Your task to perform on an android device: Search for "amazon basics triple a" on newegg, select the first entry, and add it to the cart. Image 0: 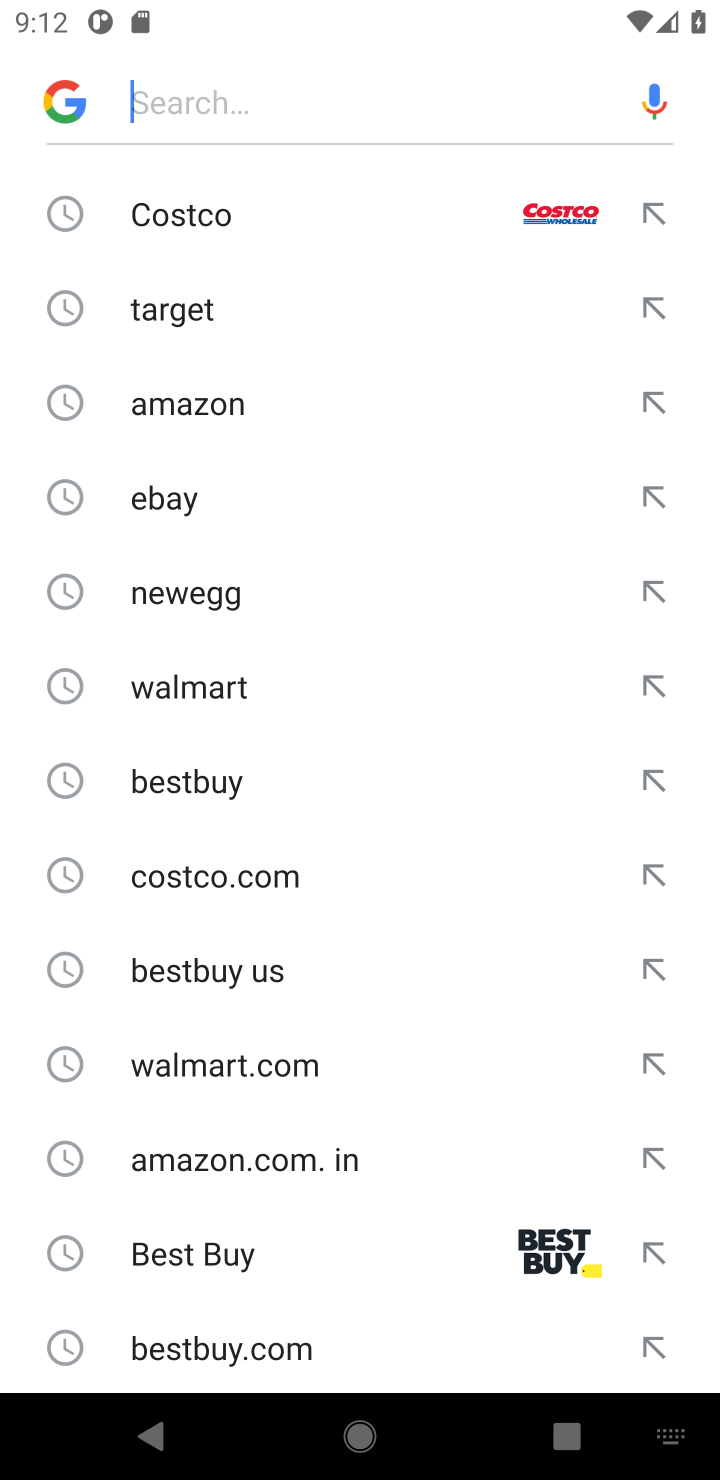
Step 0: click (235, 123)
Your task to perform on an android device: Search for "amazon basics triple a" on newegg, select the first entry, and add it to the cart. Image 1: 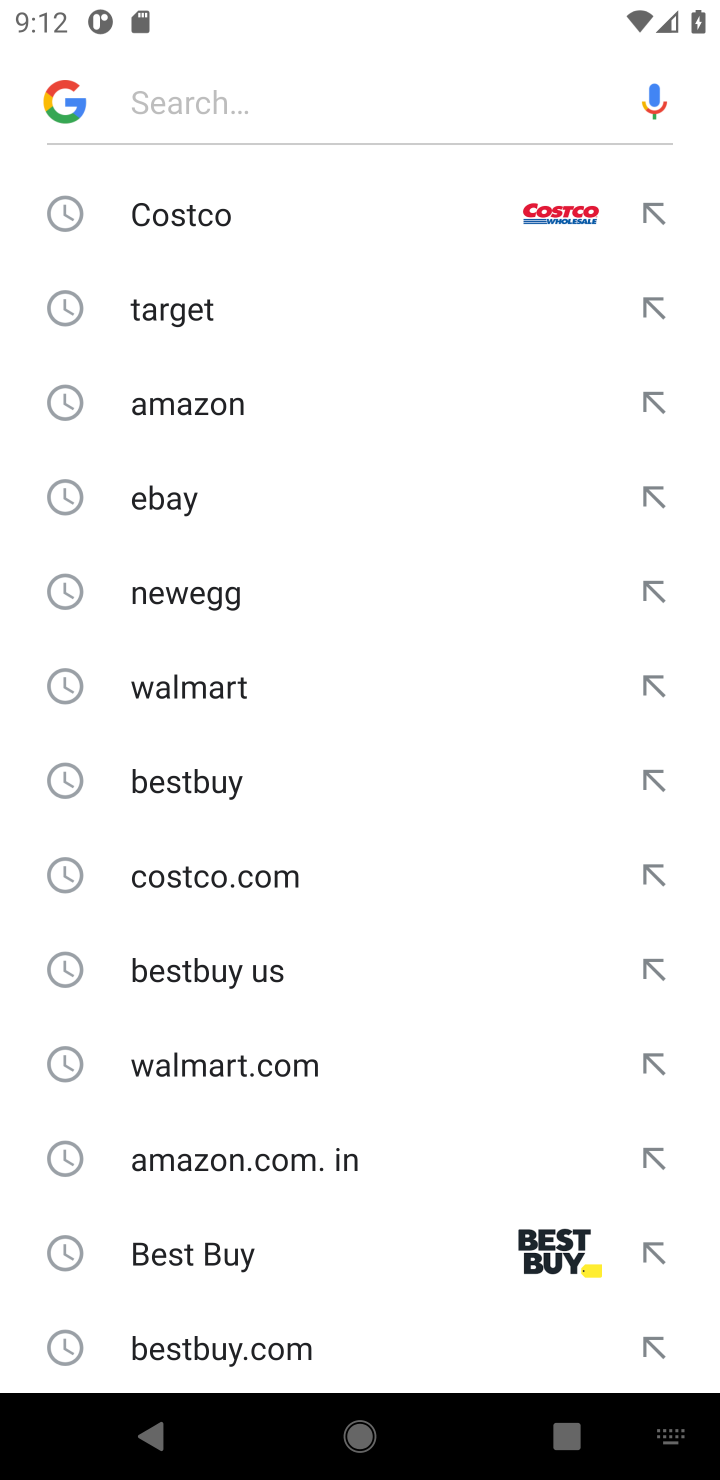
Step 1: type "newegg.com"
Your task to perform on an android device: Search for "amazon basics triple a" on newegg, select the first entry, and add it to the cart. Image 2: 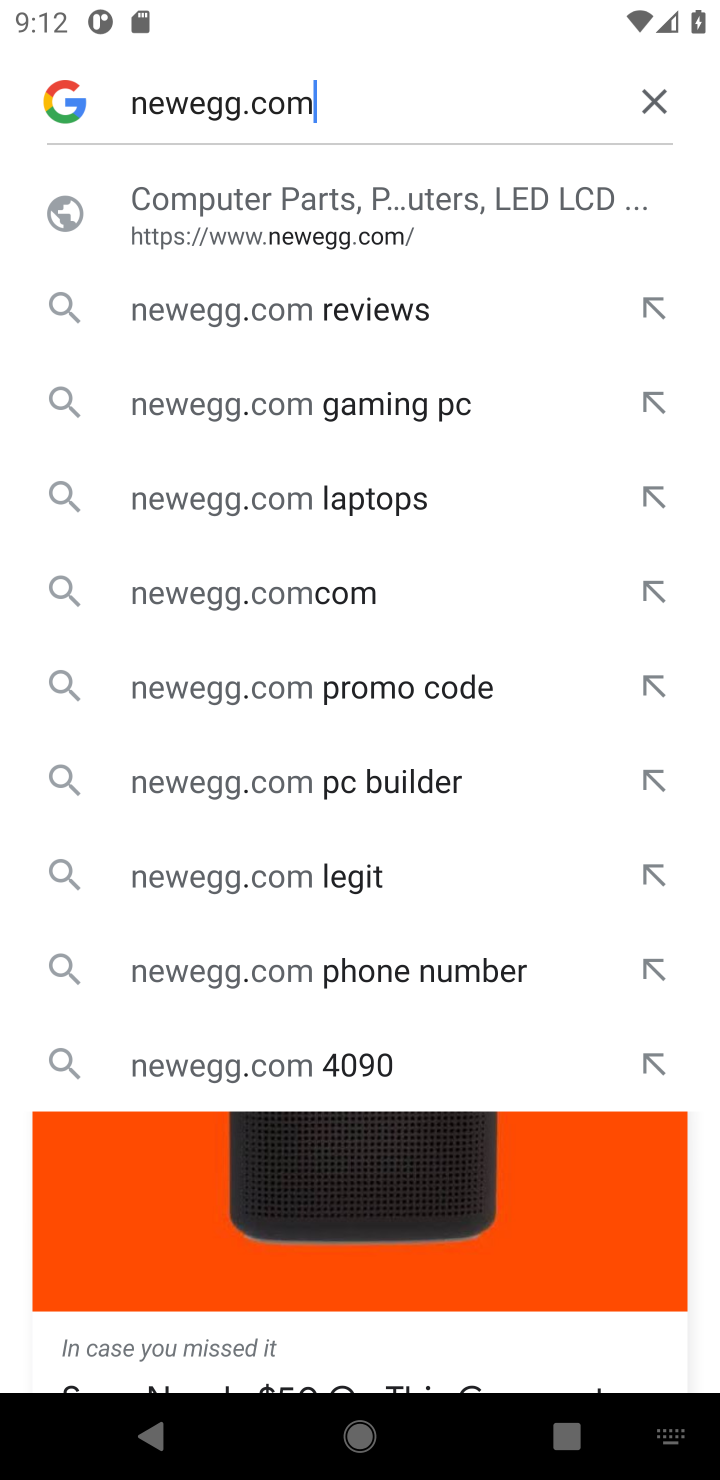
Step 2: click (205, 223)
Your task to perform on an android device: Search for "amazon basics triple a" on newegg, select the first entry, and add it to the cart. Image 3: 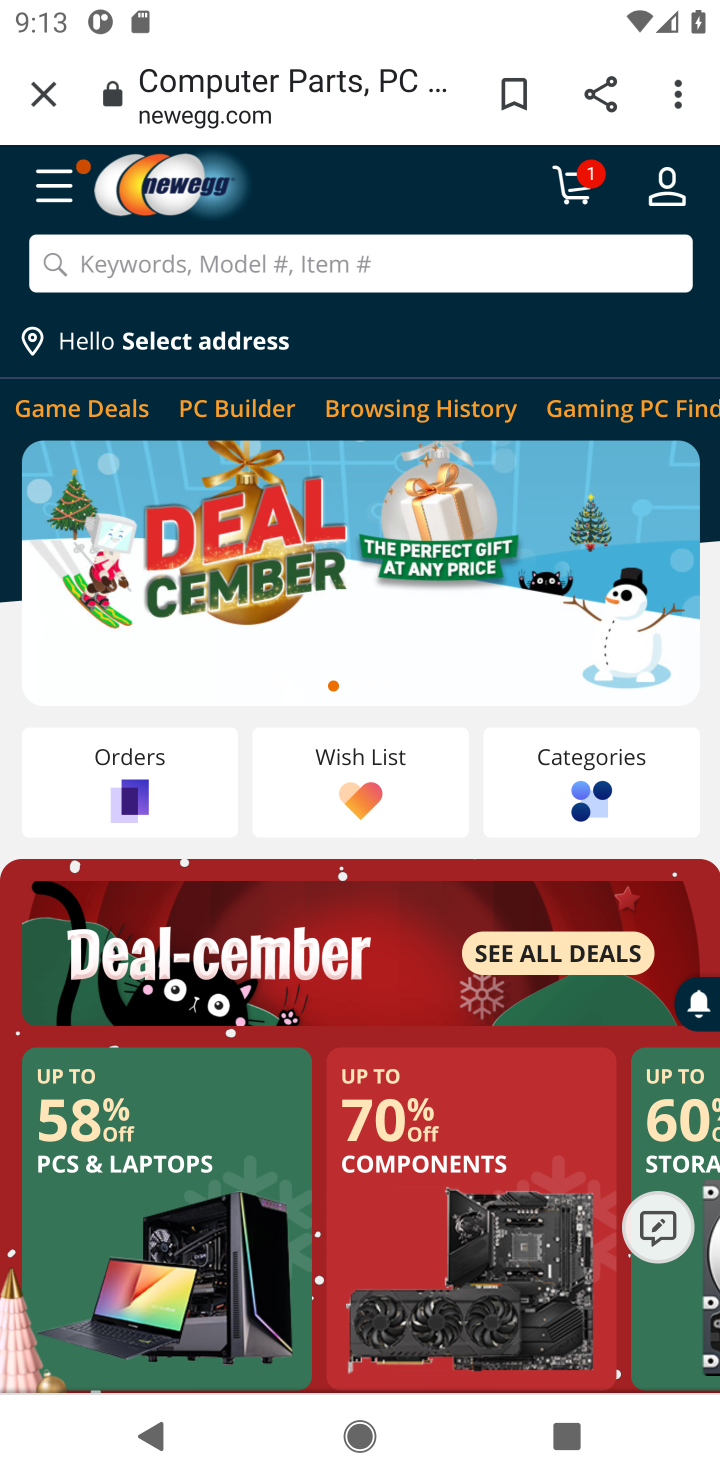
Step 3: click (112, 266)
Your task to perform on an android device: Search for "amazon basics triple a" on newegg, select the first entry, and add it to the cart. Image 4: 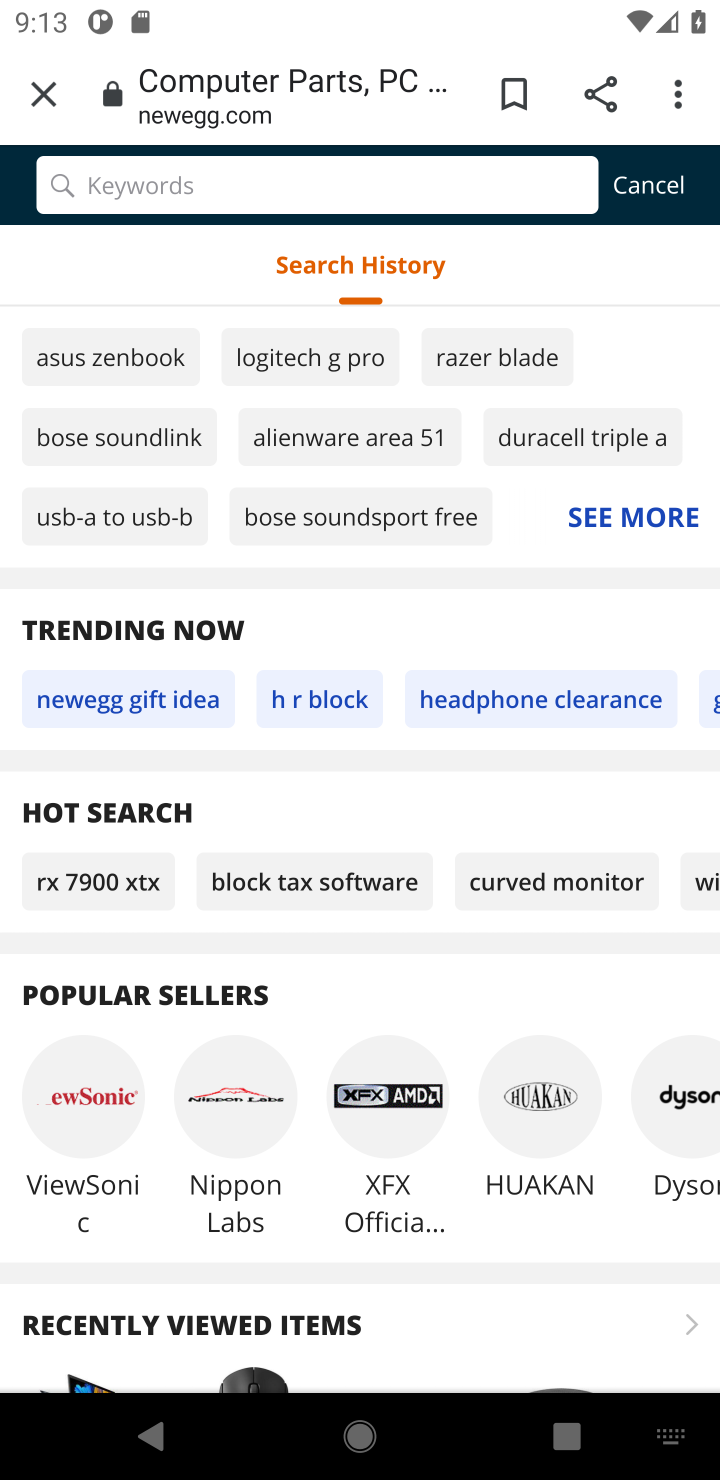
Step 4: type "amazon basics triple a"
Your task to perform on an android device: Search for "amazon basics triple a" on newegg, select the first entry, and add it to the cart. Image 5: 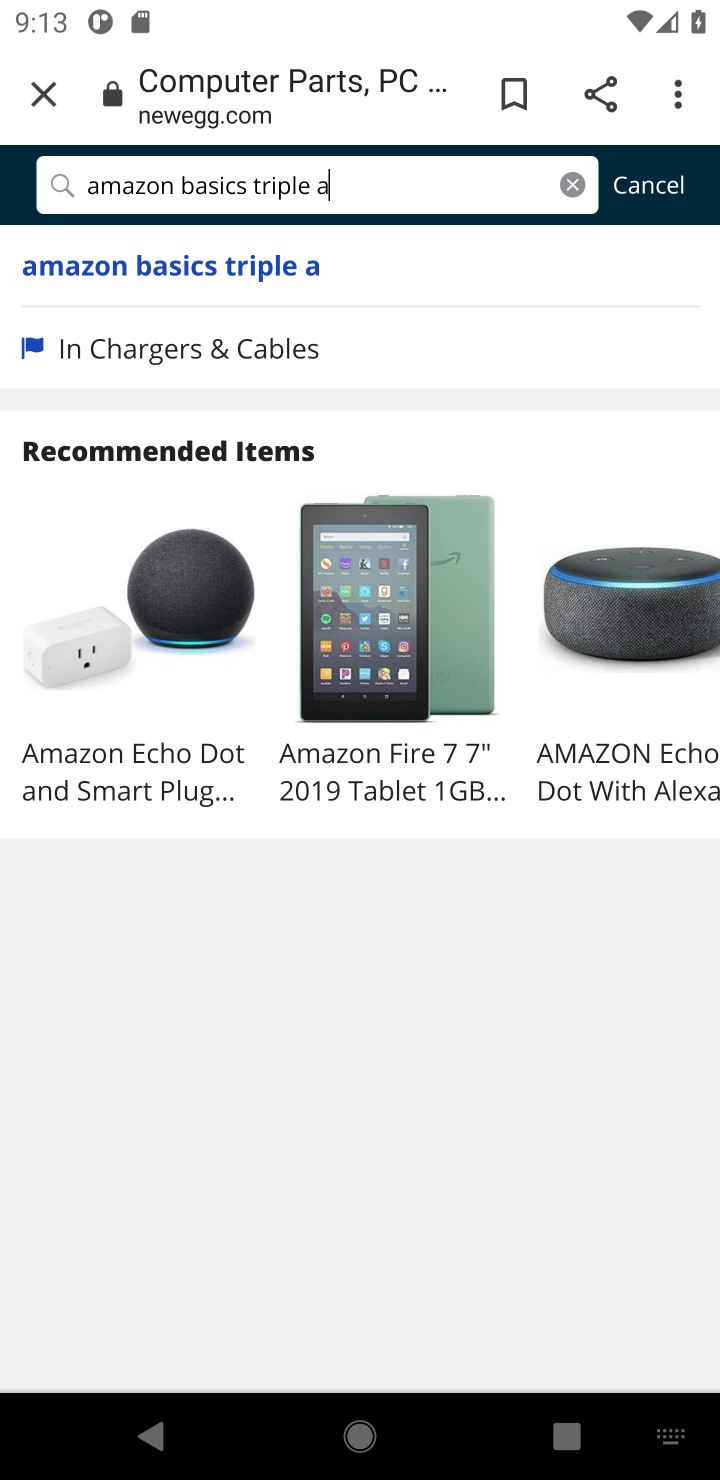
Step 5: click (143, 275)
Your task to perform on an android device: Search for "amazon basics triple a" on newegg, select the first entry, and add it to the cart. Image 6: 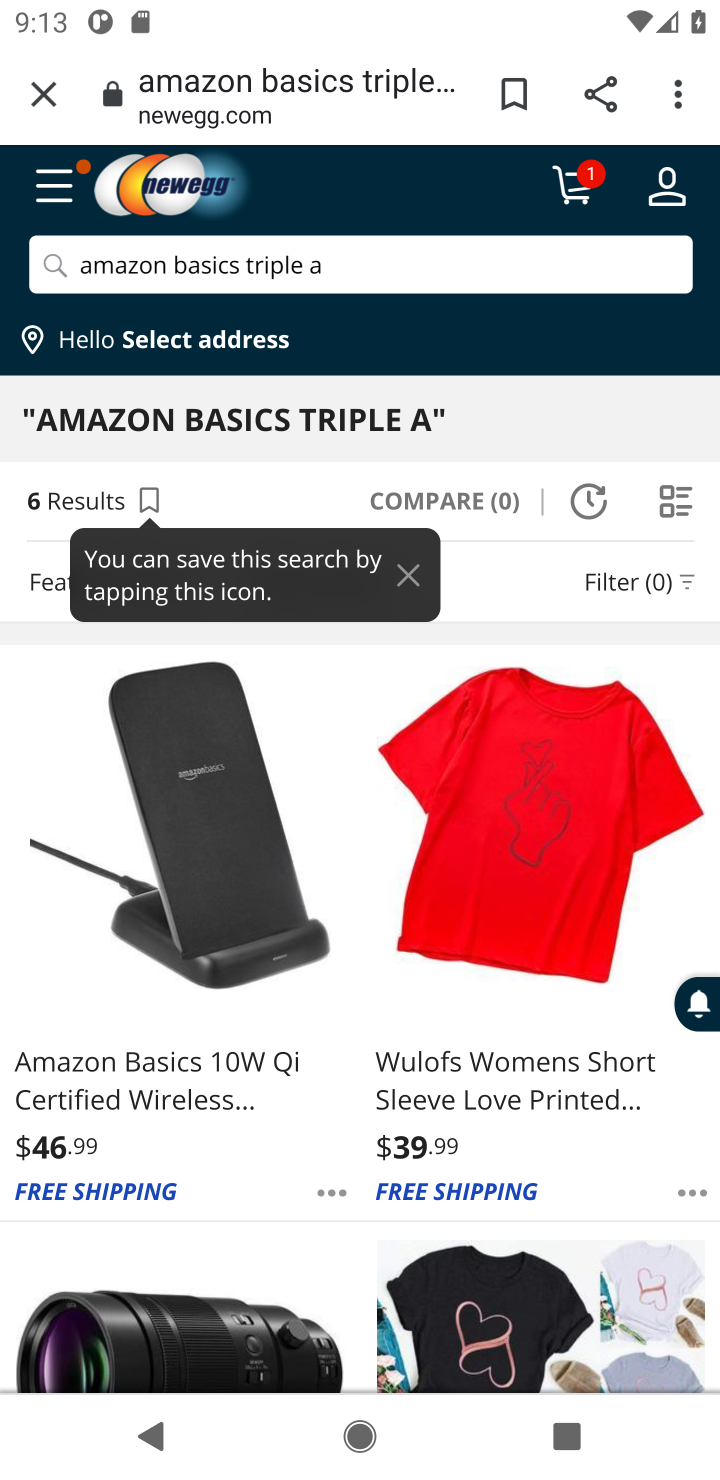
Step 6: click (138, 1090)
Your task to perform on an android device: Search for "amazon basics triple a" on newegg, select the first entry, and add it to the cart. Image 7: 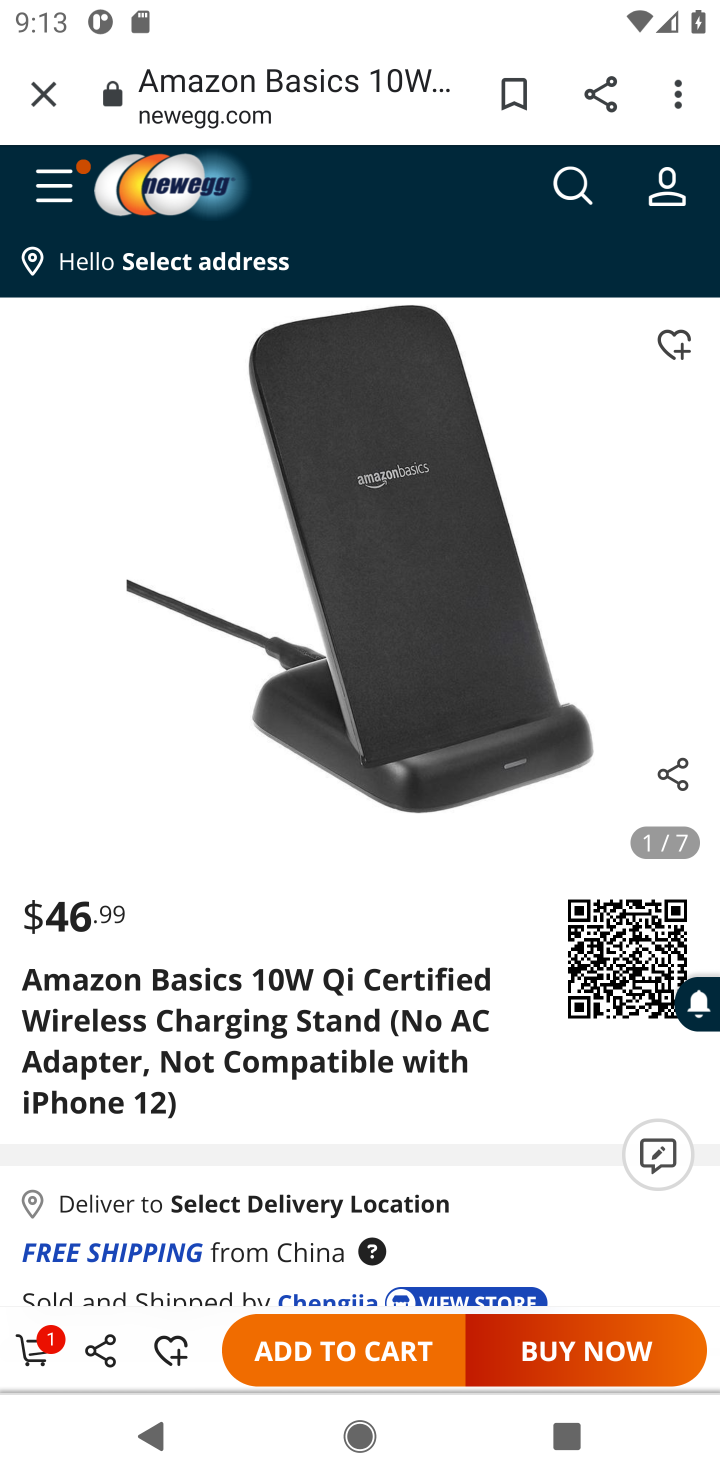
Step 7: task complete